Your task to perform on an android device: Open calendar and show me the first week of next month Image 0: 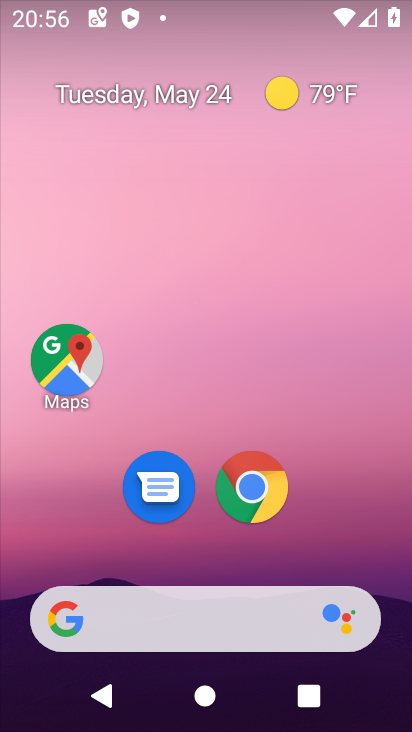
Step 0: press home button
Your task to perform on an android device: Open calendar and show me the first week of next month Image 1: 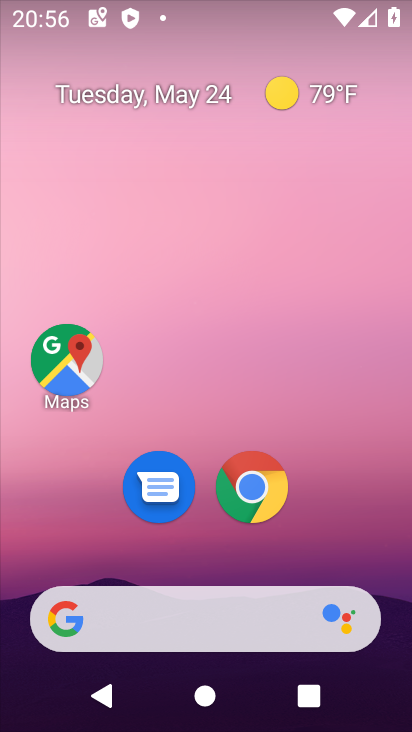
Step 1: drag from (368, 459) to (338, 118)
Your task to perform on an android device: Open calendar and show me the first week of next month Image 2: 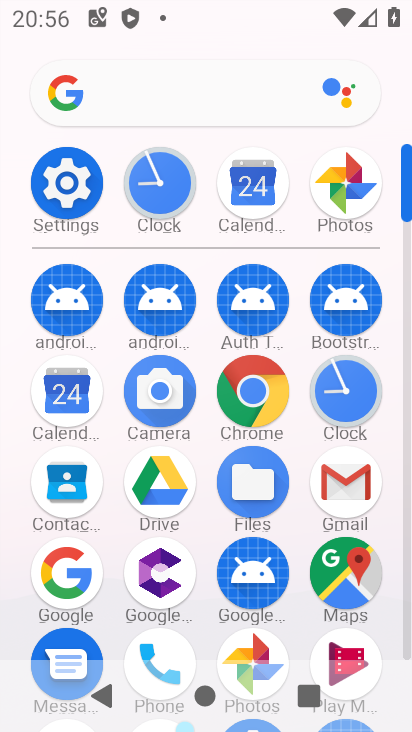
Step 2: click (62, 381)
Your task to perform on an android device: Open calendar and show me the first week of next month Image 3: 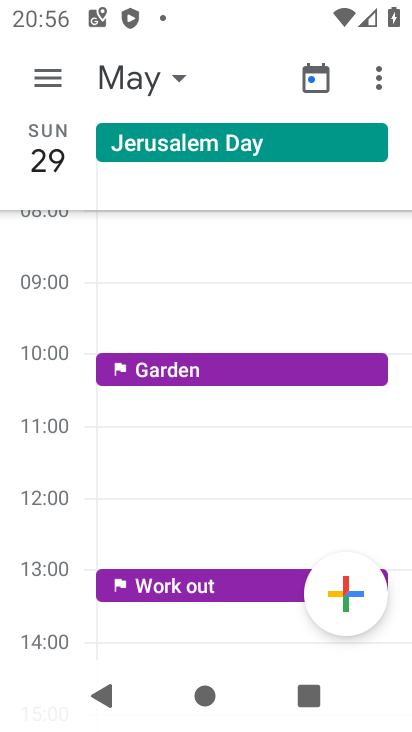
Step 3: click (163, 82)
Your task to perform on an android device: Open calendar and show me the first week of next month Image 4: 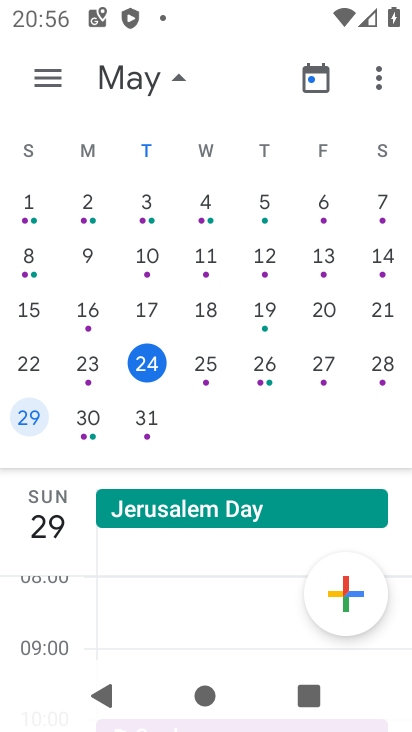
Step 4: task complete